Your task to perform on an android device: What's on Reddit Image 0: 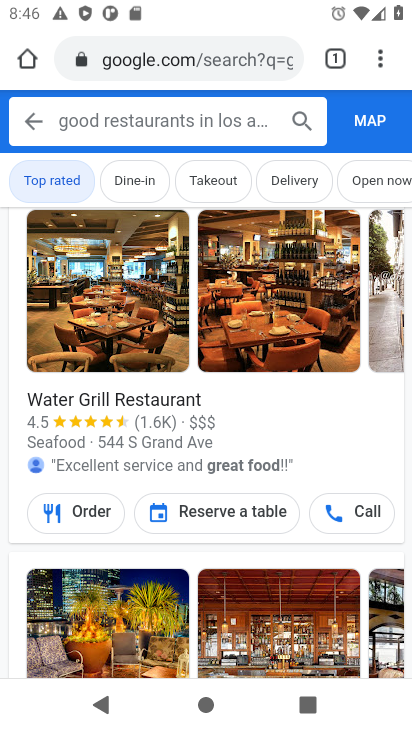
Step 0: click (234, 55)
Your task to perform on an android device: What's on Reddit Image 1: 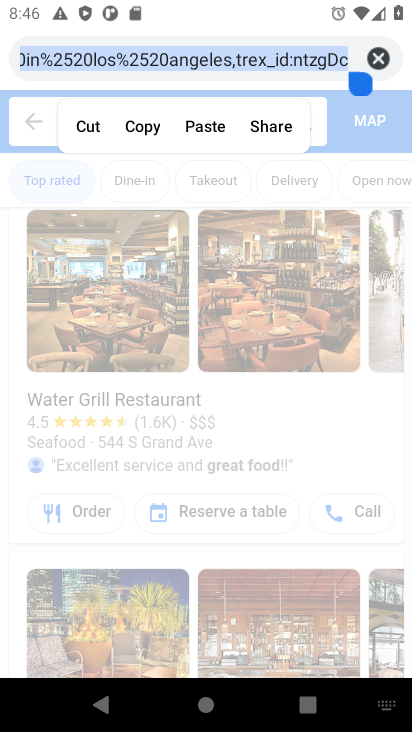
Step 1: type "reddit"
Your task to perform on an android device: What's on Reddit Image 2: 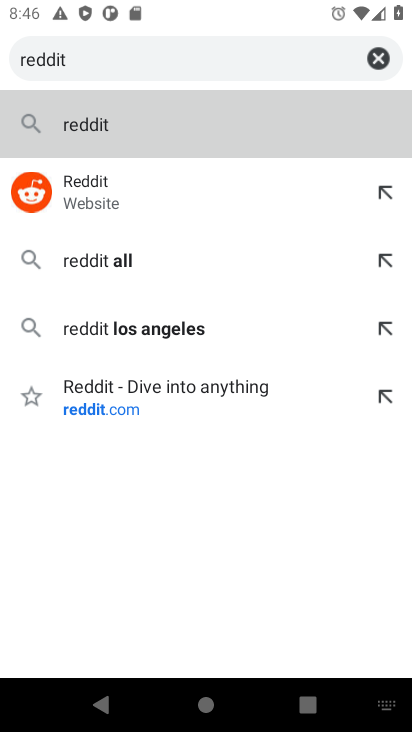
Step 2: click (176, 203)
Your task to perform on an android device: What's on Reddit Image 3: 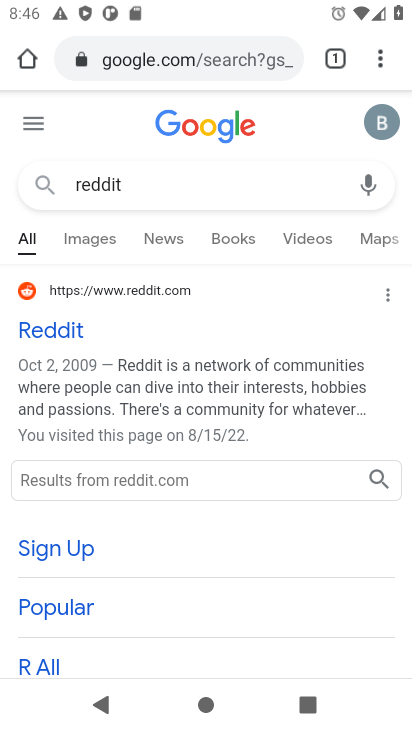
Step 3: click (47, 328)
Your task to perform on an android device: What's on Reddit Image 4: 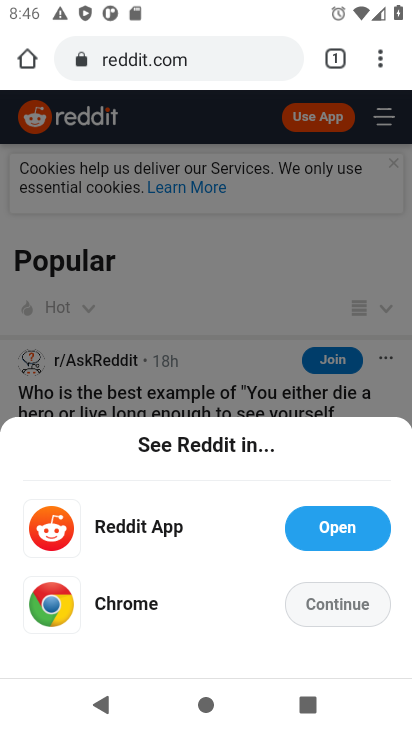
Step 4: click (262, 353)
Your task to perform on an android device: What's on Reddit Image 5: 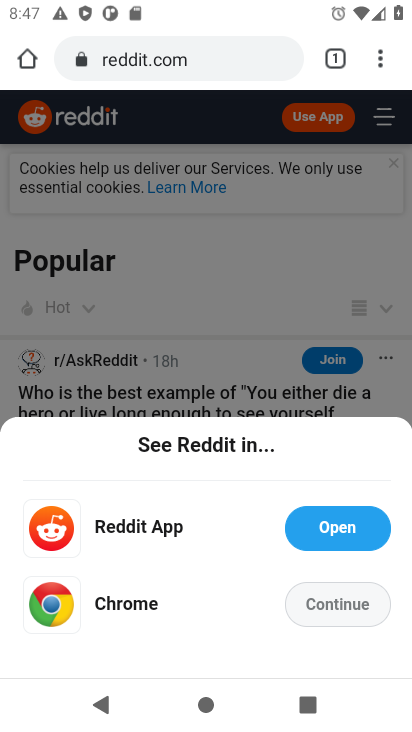
Step 5: click (331, 540)
Your task to perform on an android device: What's on Reddit Image 6: 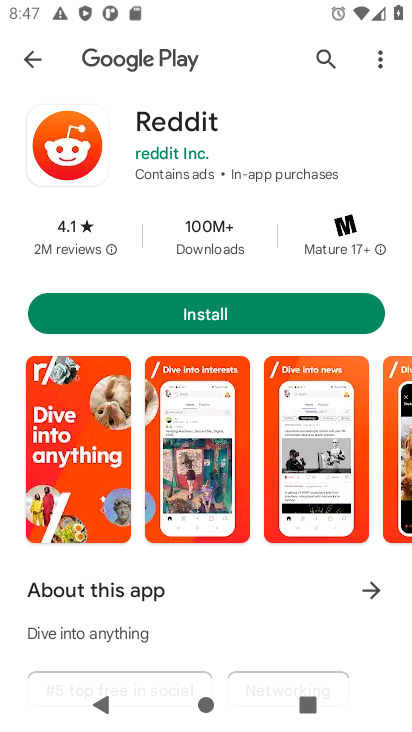
Step 6: press back button
Your task to perform on an android device: What's on Reddit Image 7: 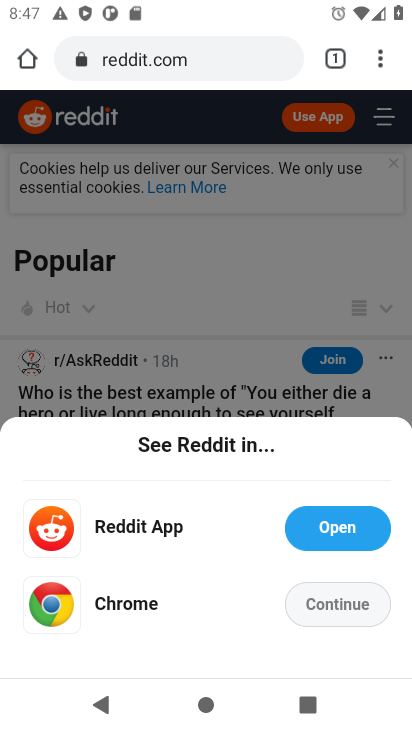
Step 7: click (158, 324)
Your task to perform on an android device: What's on Reddit Image 8: 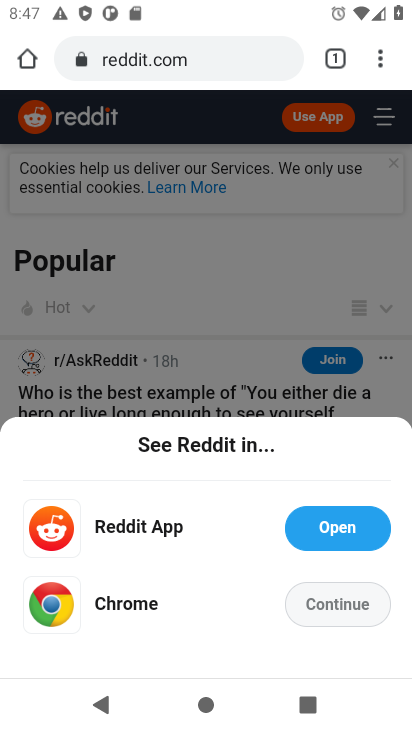
Step 8: click (350, 600)
Your task to perform on an android device: What's on Reddit Image 9: 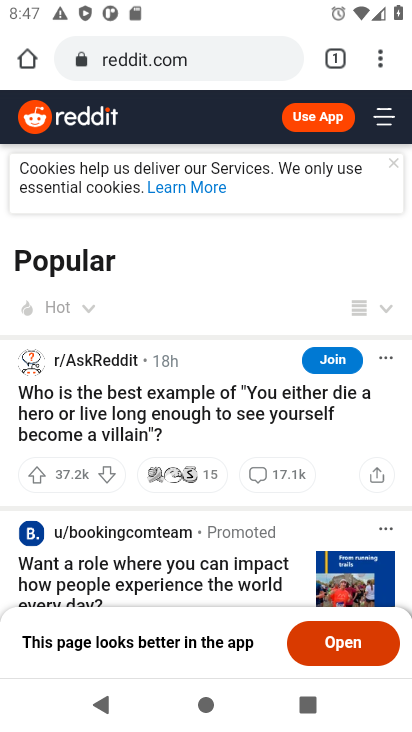
Step 9: drag from (160, 512) to (183, 486)
Your task to perform on an android device: What's on Reddit Image 10: 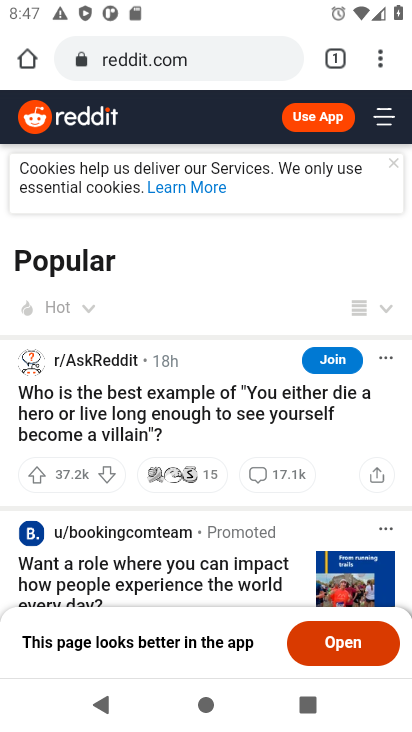
Step 10: click (374, 110)
Your task to perform on an android device: What's on Reddit Image 11: 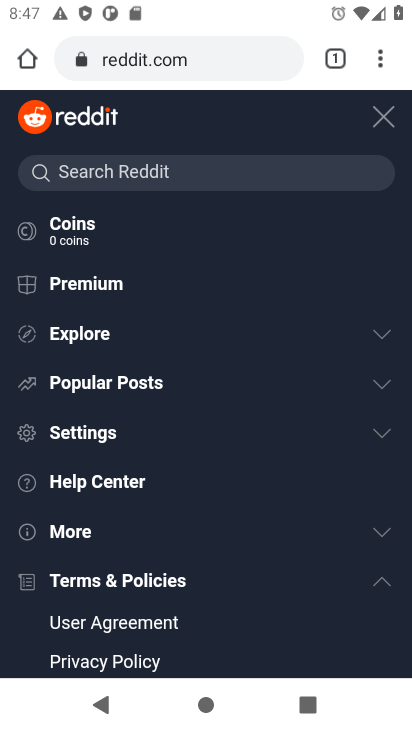
Step 11: click (173, 471)
Your task to perform on an android device: What's on Reddit Image 12: 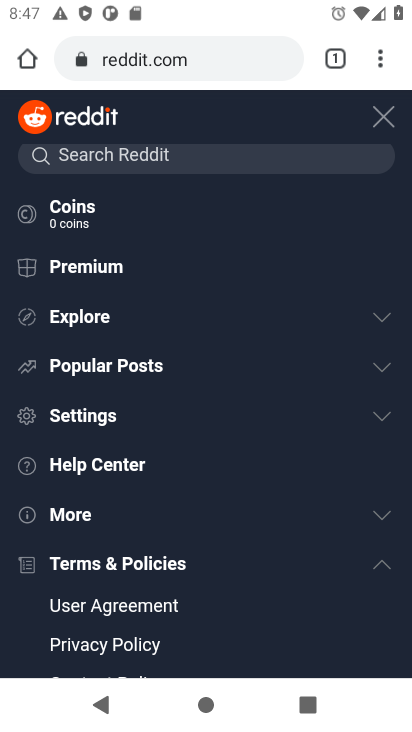
Step 12: drag from (122, 220) to (146, 363)
Your task to perform on an android device: What's on Reddit Image 13: 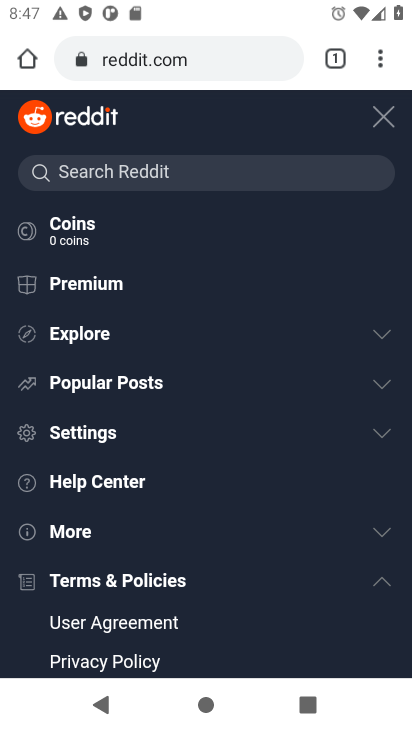
Step 13: click (368, 116)
Your task to perform on an android device: What's on Reddit Image 14: 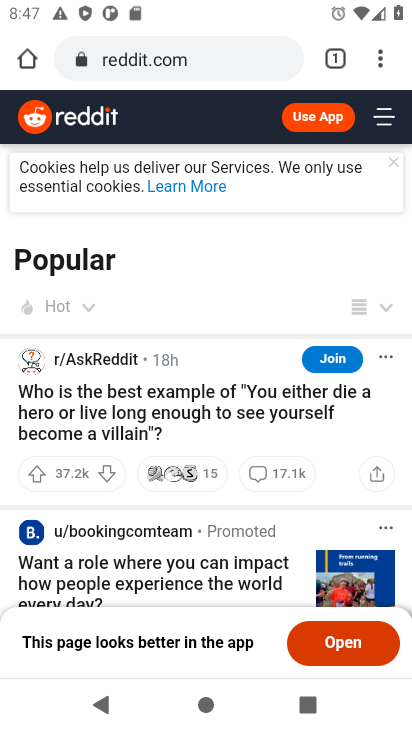
Step 14: task complete